Your task to perform on an android device: empty trash in the gmail app Image 0: 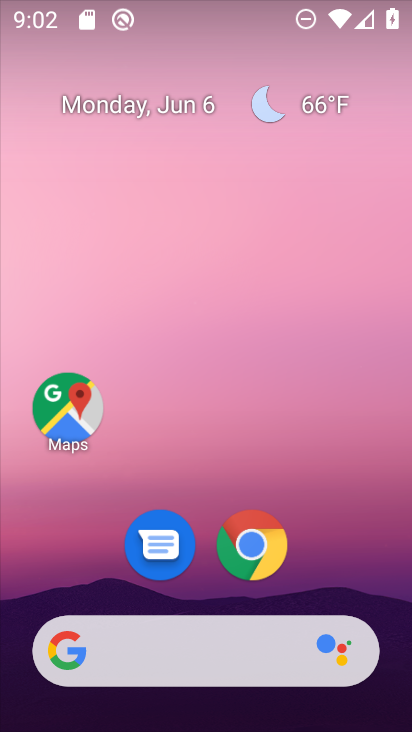
Step 0: drag from (222, 606) to (261, 133)
Your task to perform on an android device: empty trash in the gmail app Image 1: 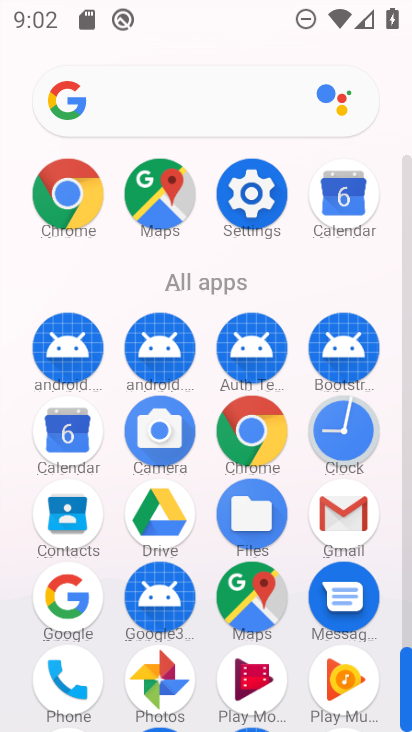
Step 1: click (337, 512)
Your task to perform on an android device: empty trash in the gmail app Image 2: 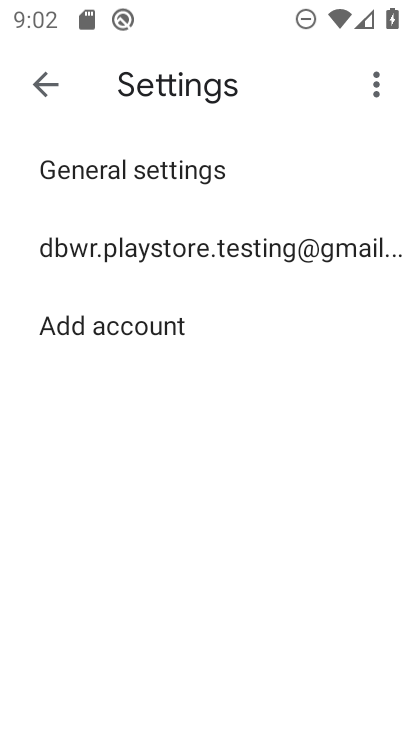
Step 2: click (28, 84)
Your task to perform on an android device: empty trash in the gmail app Image 3: 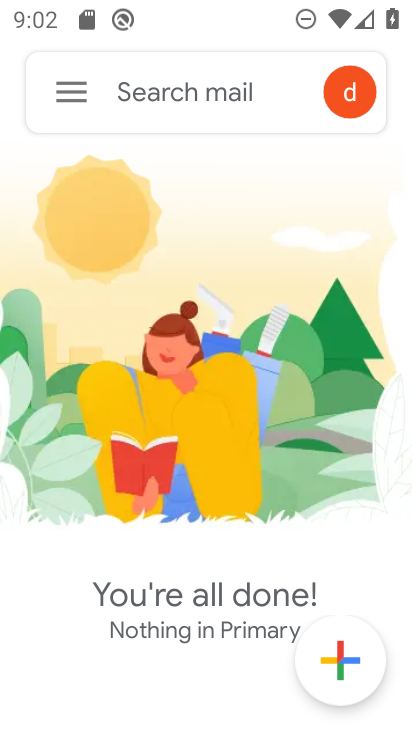
Step 3: click (68, 96)
Your task to perform on an android device: empty trash in the gmail app Image 4: 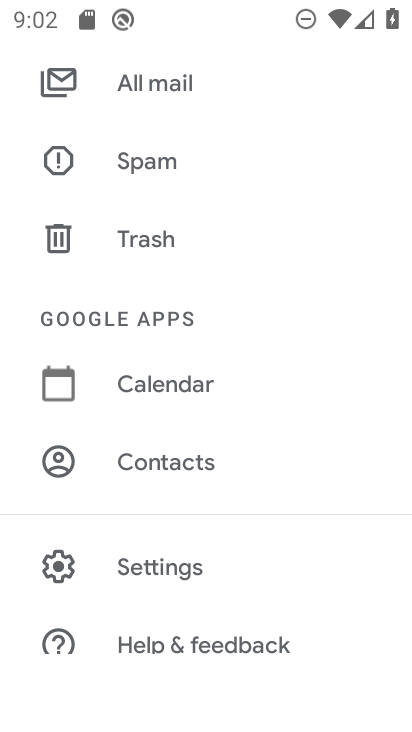
Step 4: click (143, 236)
Your task to perform on an android device: empty trash in the gmail app Image 5: 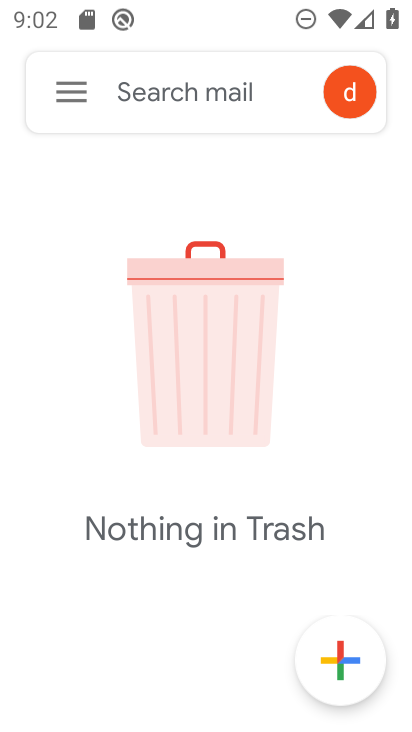
Step 5: task complete